Your task to perform on an android device: Search for a new highlighter Image 0: 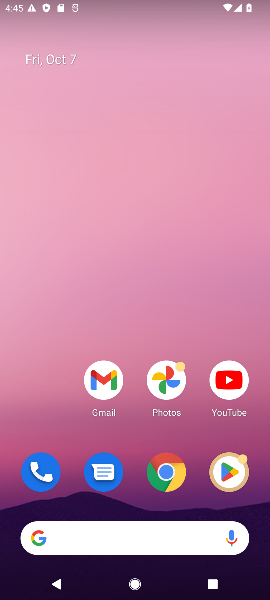
Step 0: click (162, 478)
Your task to perform on an android device: Search for a new highlighter Image 1: 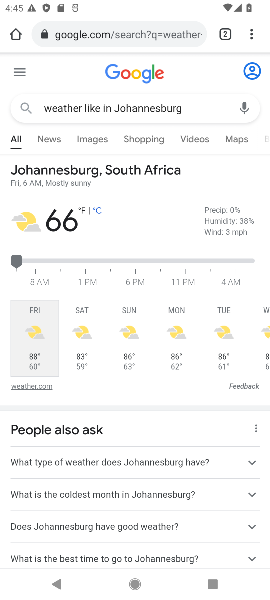
Step 1: click (165, 36)
Your task to perform on an android device: Search for a new highlighter Image 2: 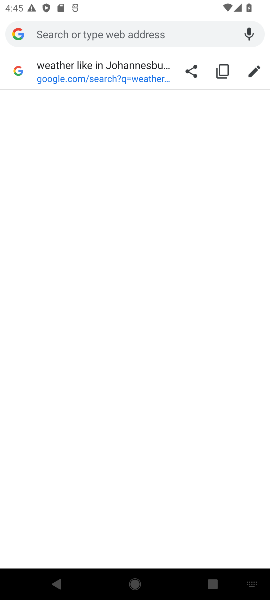
Step 2: type "new highlighter"
Your task to perform on an android device: Search for a new highlighter Image 3: 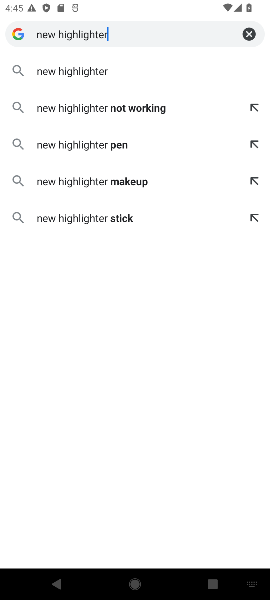
Step 3: click (73, 66)
Your task to perform on an android device: Search for a new highlighter Image 4: 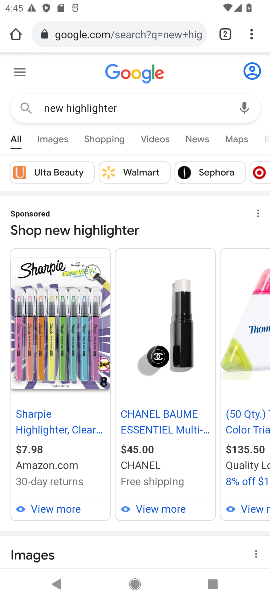
Step 4: task complete